Your task to perform on an android device: What time is it in Beijing? Image 0: 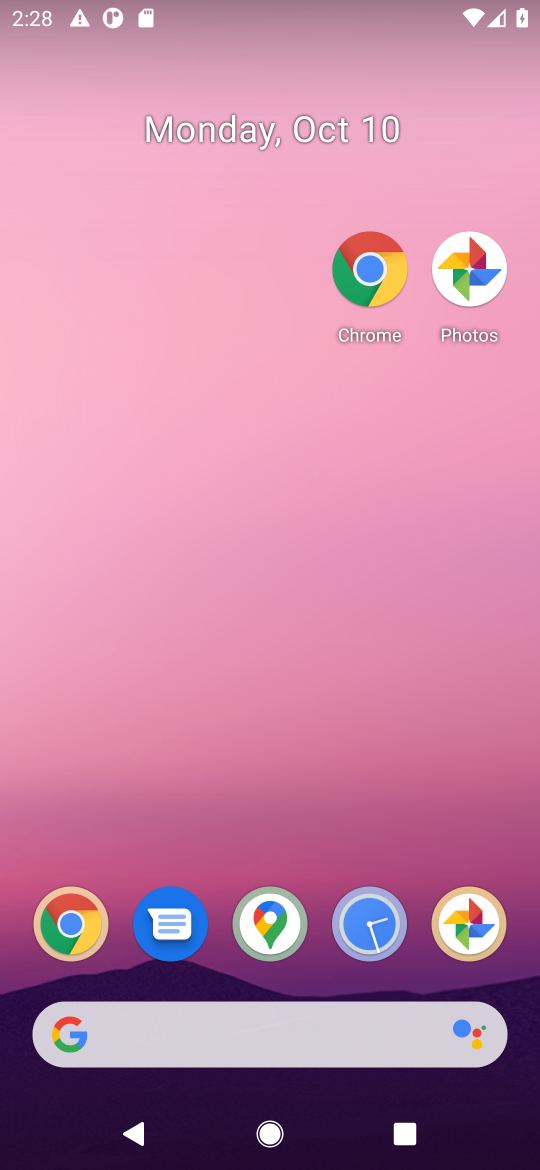
Step 0: drag from (218, 832) to (126, 49)
Your task to perform on an android device: What time is it in Beijing? Image 1: 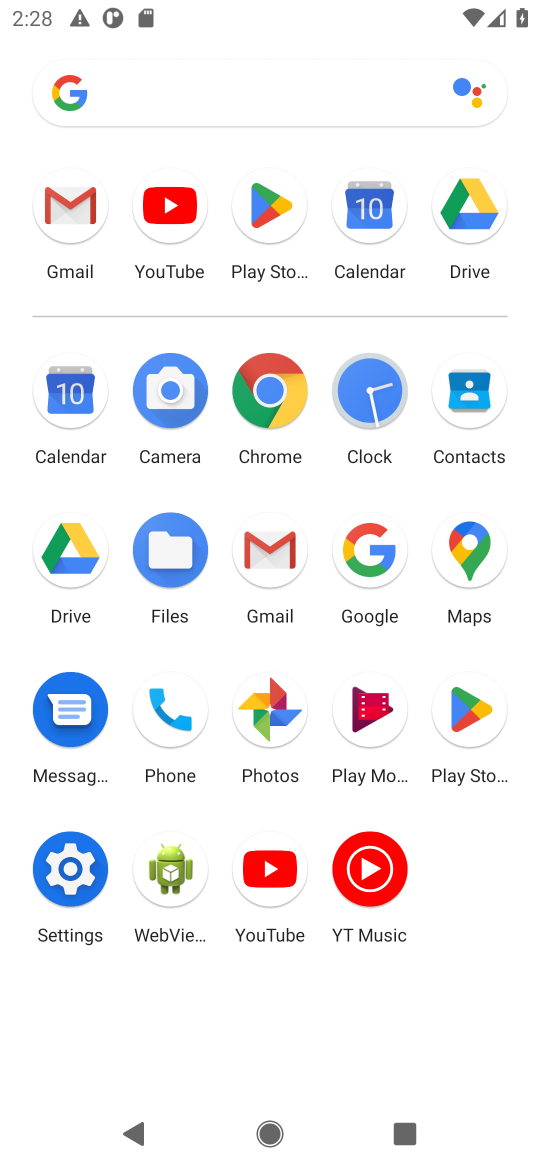
Step 1: click (275, 380)
Your task to perform on an android device: What time is it in Beijing? Image 2: 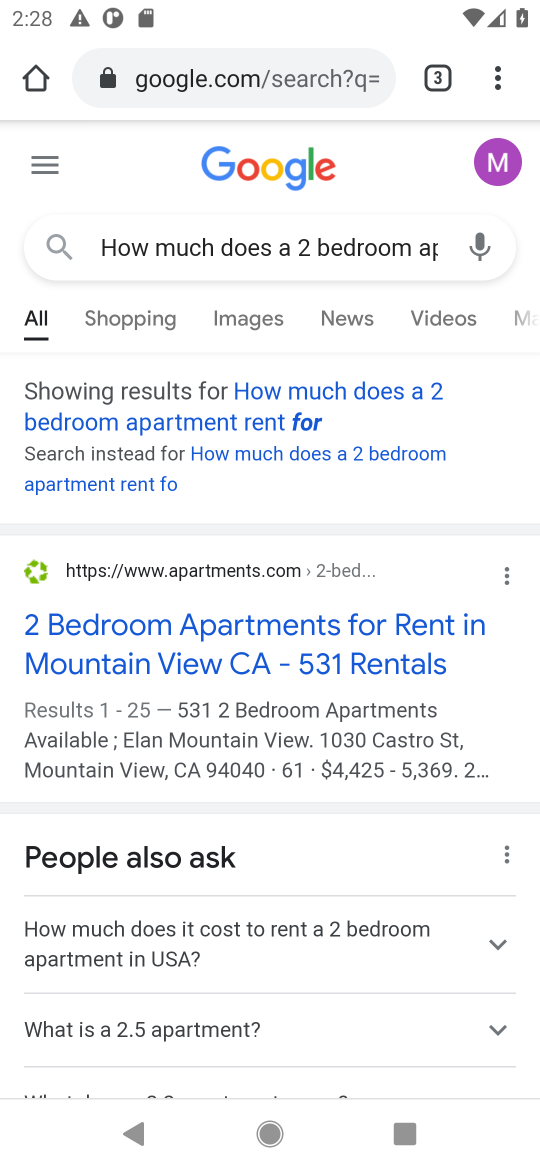
Step 2: click (177, 73)
Your task to perform on an android device: What time is it in Beijing? Image 3: 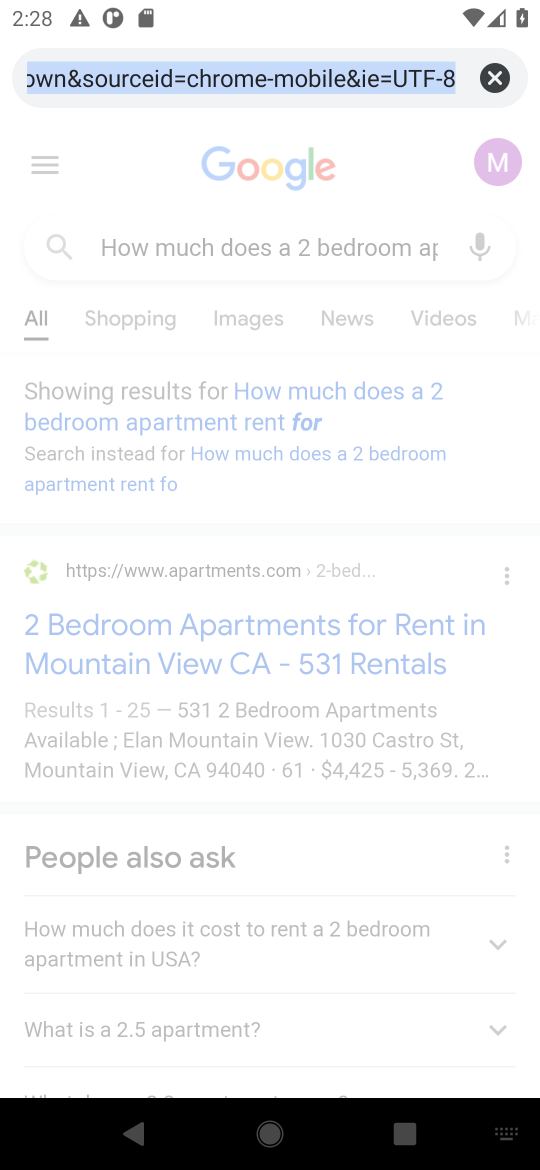
Step 3: click (503, 77)
Your task to perform on an android device: What time is it in Beijing? Image 4: 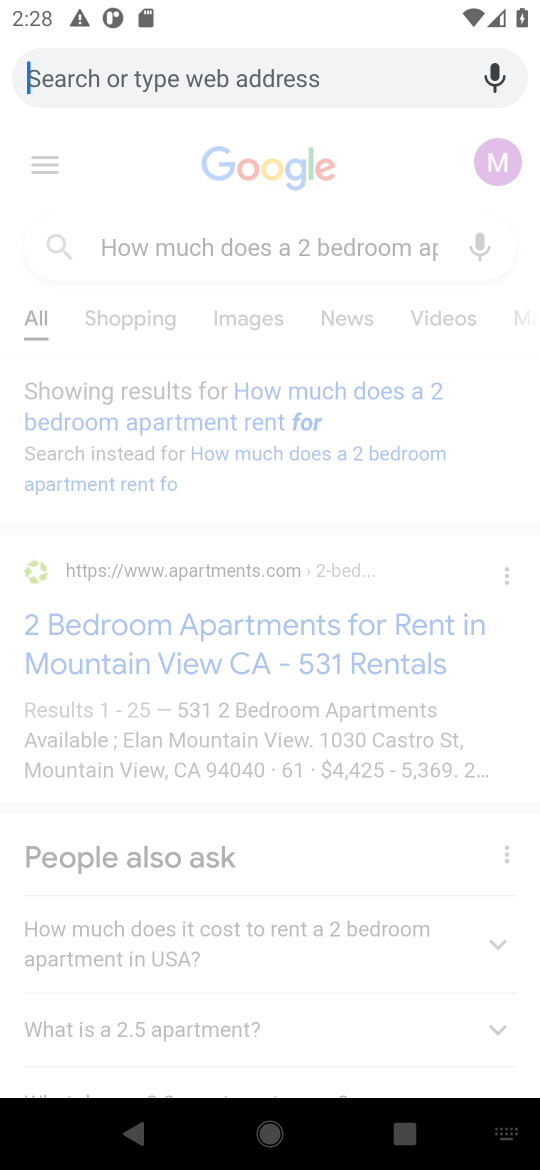
Step 4: type "What time is it in Beijing?"
Your task to perform on an android device: What time is it in Beijing? Image 5: 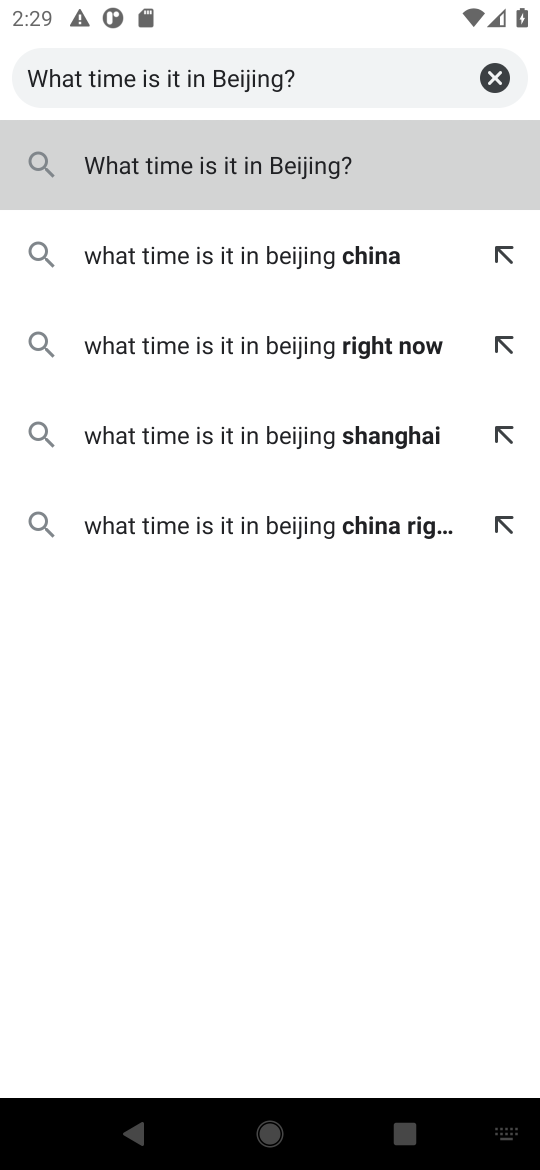
Step 5: click (302, 154)
Your task to perform on an android device: What time is it in Beijing? Image 6: 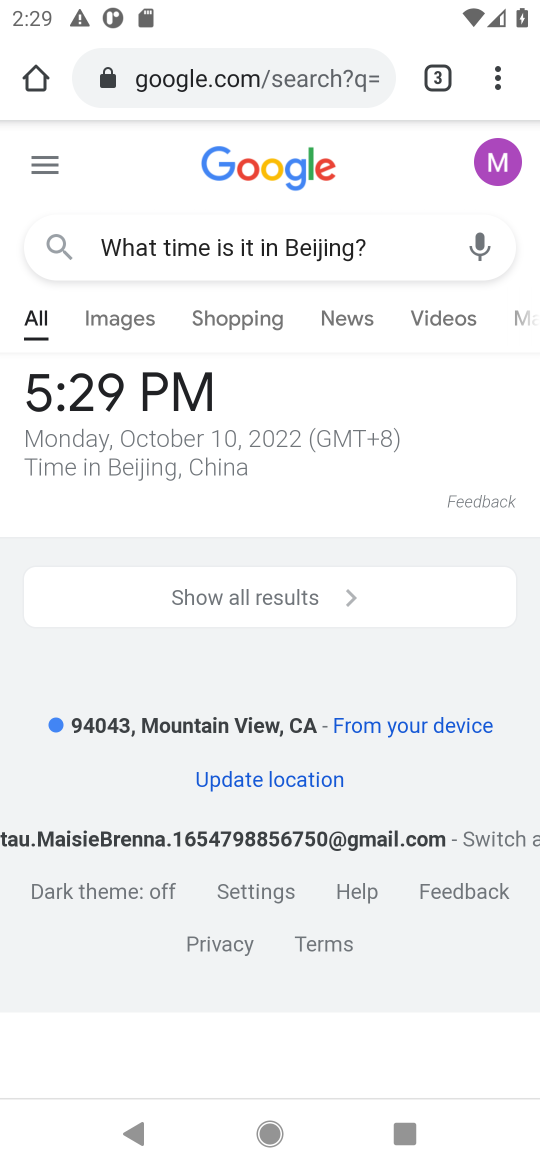
Step 6: task complete